Your task to perform on an android device: turn off wifi Image 0: 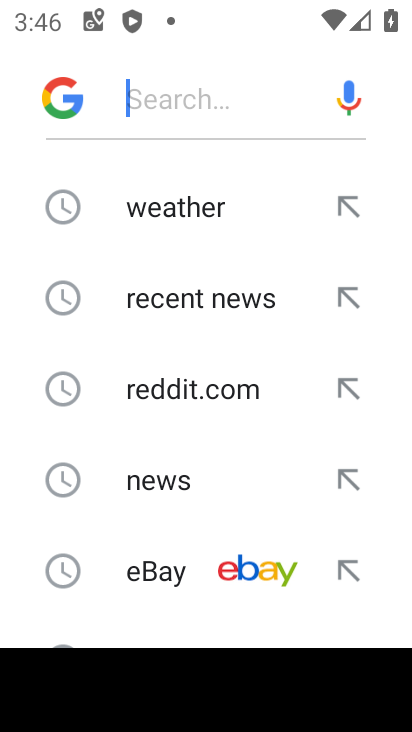
Step 0: press home button
Your task to perform on an android device: turn off wifi Image 1: 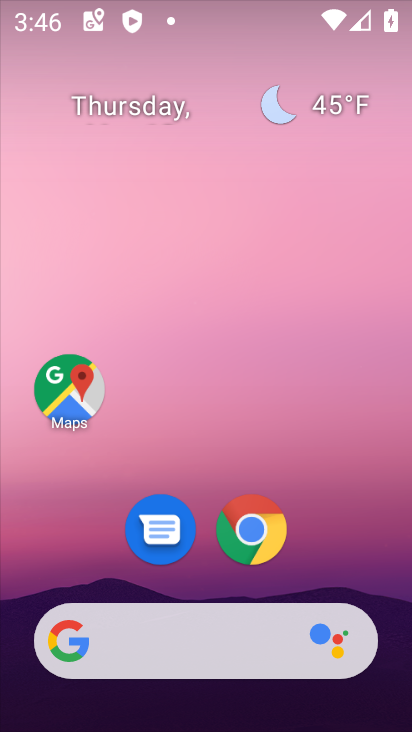
Step 1: drag from (337, 514) to (331, 20)
Your task to perform on an android device: turn off wifi Image 2: 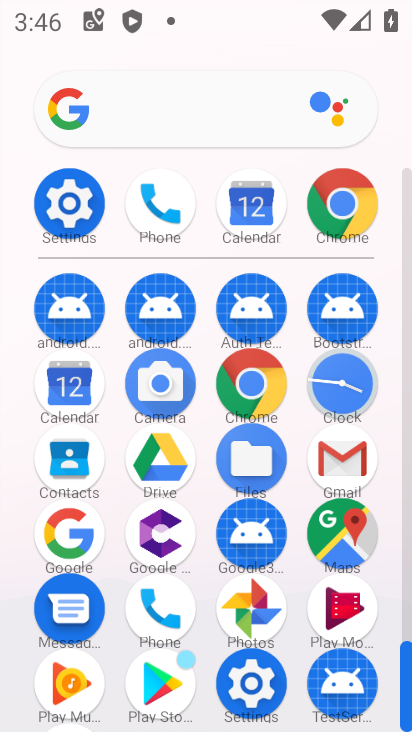
Step 2: click (61, 212)
Your task to perform on an android device: turn off wifi Image 3: 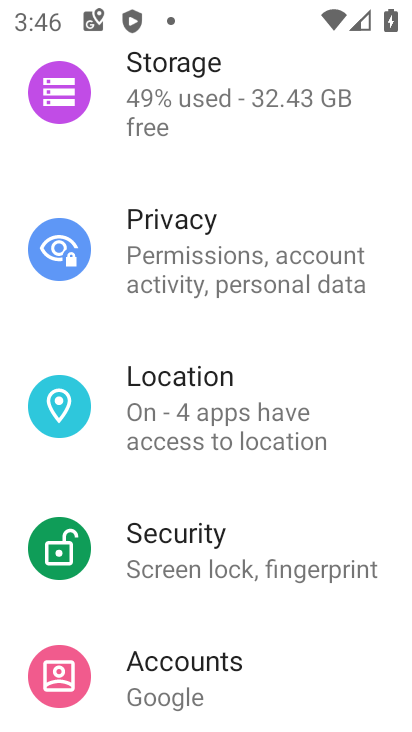
Step 3: drag from (234, 163) to (223, 731)
Your task to perform on an android device: turn off wifi Image 4: 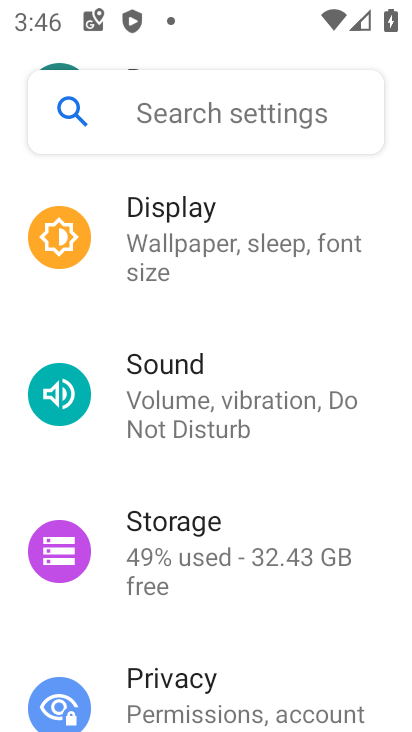
Step 4: drag from (160, 172) to (134, 693)
Your task to perform on an android device: turn off wifi Image 5: 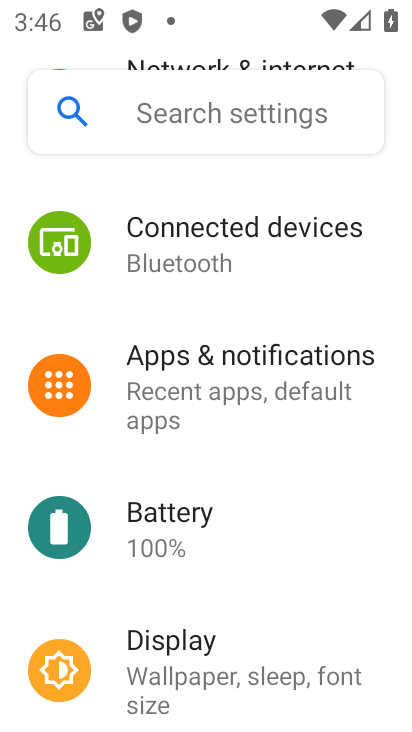
Step 5: drag from (200, 211) to (241, 723)
Your task to perform on an android device: turn off wifi Image 6: 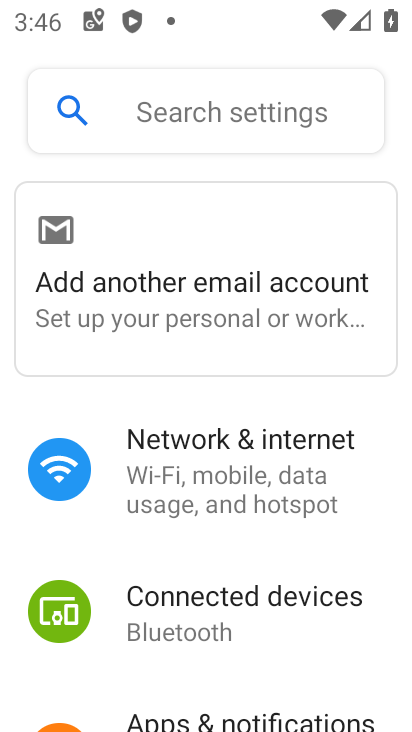
Step 6: click (219, 449)
Your task to perform on an android device: turn off wifi Image 7: 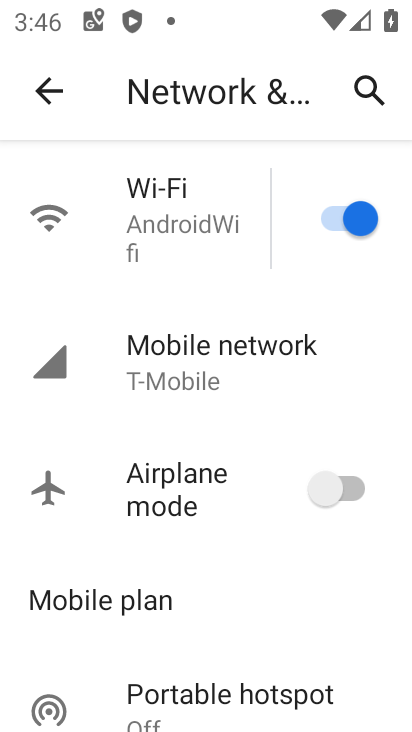
Step 7: click (324, 221)
Your task to perform on an android device: turn off wifi Image 8: 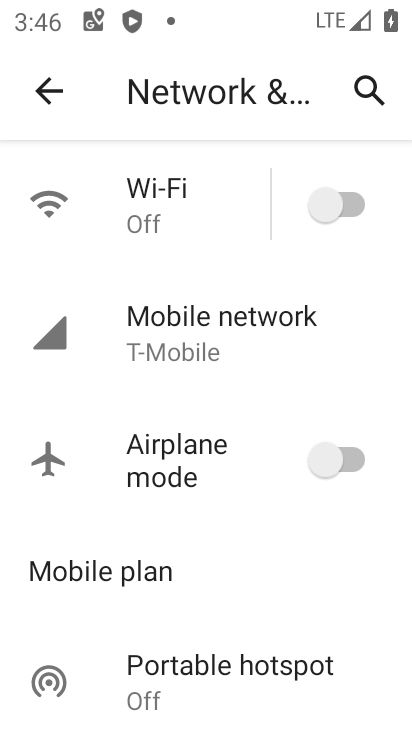
Step 8: task complete